Your task to perform on an android device: turn on notifications settings in the gmail app Image 0: 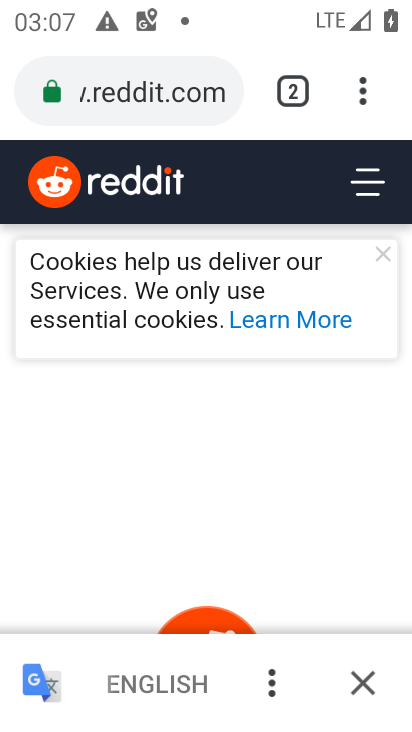
Step 0: press home button
Your task to perform on an android device: turn on notifications settings in the gmail app Image 1: 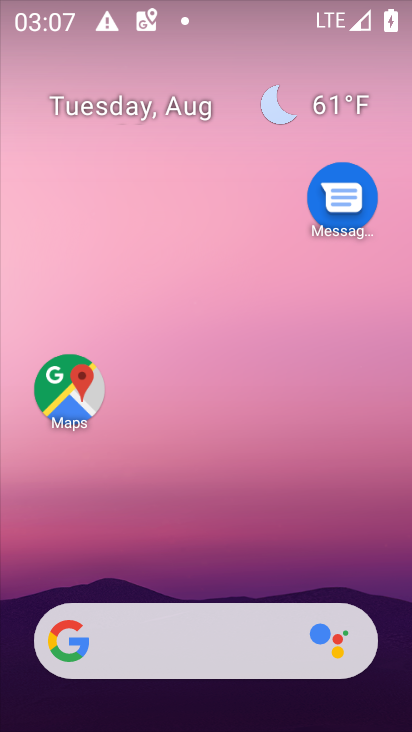
Step 1: drag from (200, 572) to (213, 43)
Your task to perform on an android device: turn on notifications settings in the gmail app Image 2: 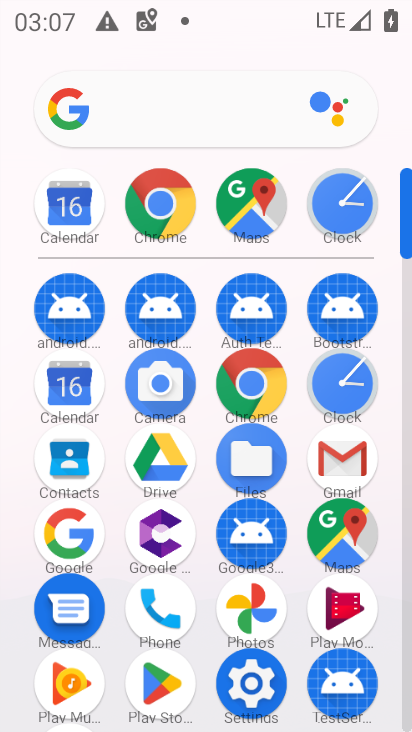
Step 2: click (327, 459)
Your task to perform on an android device: turn on notifications settings in the gmail app Image 3: 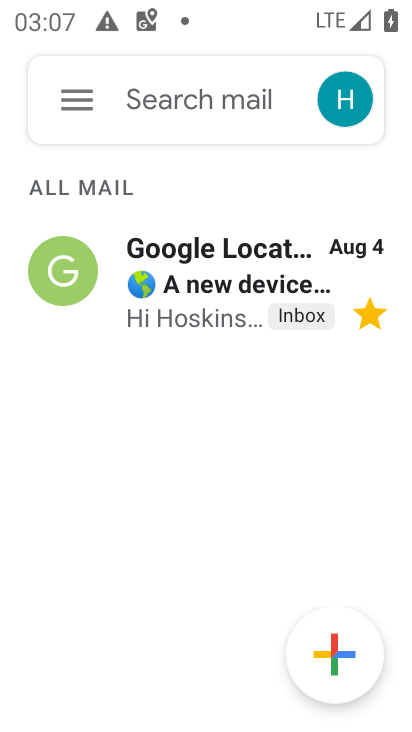
Step 3: click (57, 108)
Your task to perform on an android device: turn on notifications settings in the gmail app Image 4: 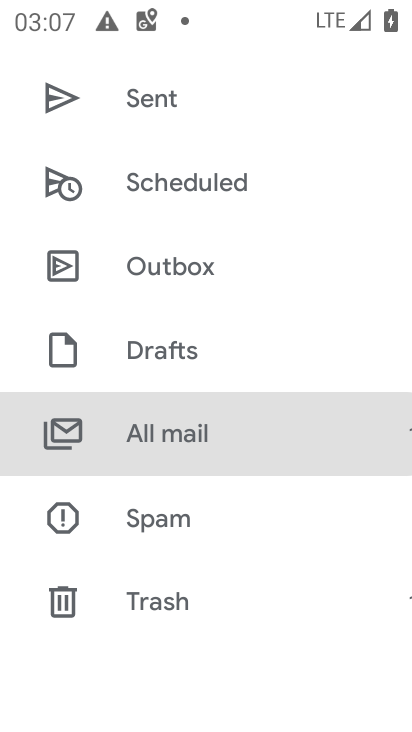
Step 4: drag from (203, 618) to (203, 337)
Your task to perform on an android device: turn on notifications settings in the gmail app Image 5: 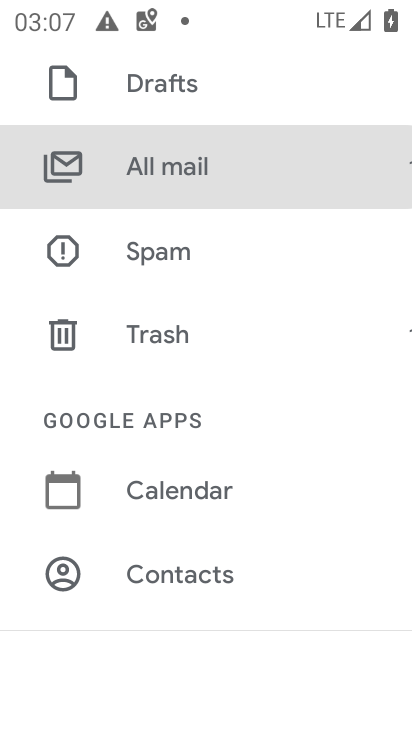
Step 5: drag from (221, 621) to (205, 312)
Your task to perform on an android device: turn on notifications settings in the gmail app Image 6: 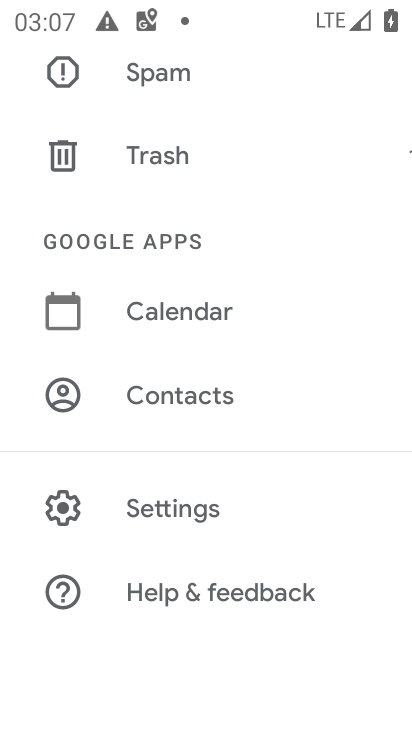
Step 6: click (211, 488)
Your task to perform on an android device: turn on notifications settings in the gmail app Image 7: 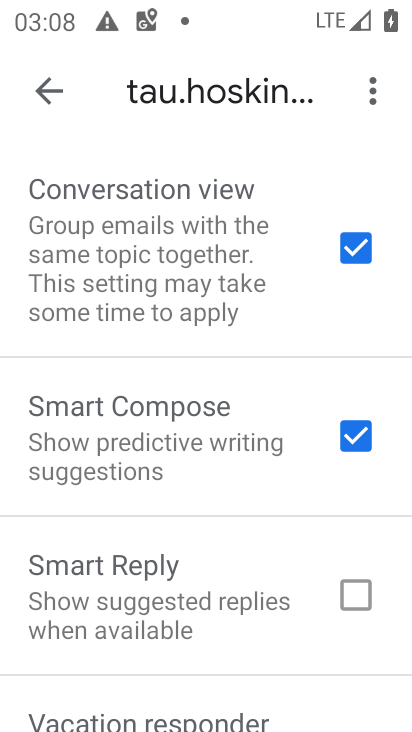
Step 7: drag from (212, 603) to (239, 197)
Your task to perform on an android device: turn on notifications settings in the gmail app Image 8: 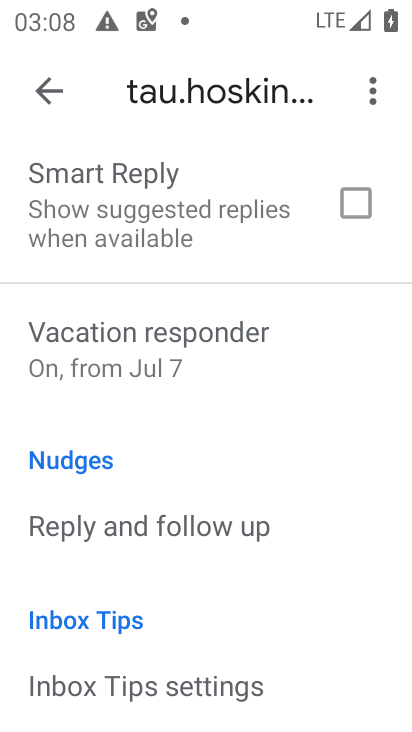
Step 8: drag from (205, 556) to (215, 216)
Your task to perform on an android device: turn on notifications settings in the gmail app Image 9: 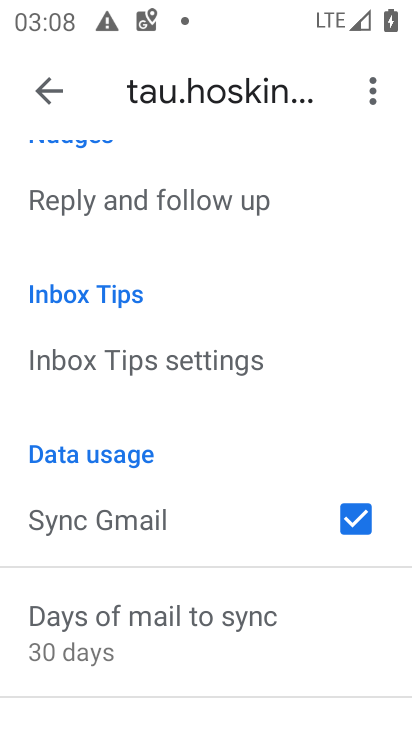
Step 9: drag from (129, 231) to (170, 621)
Your task to perform on an android device: turn on notifications settings in the gmail app Image 10: 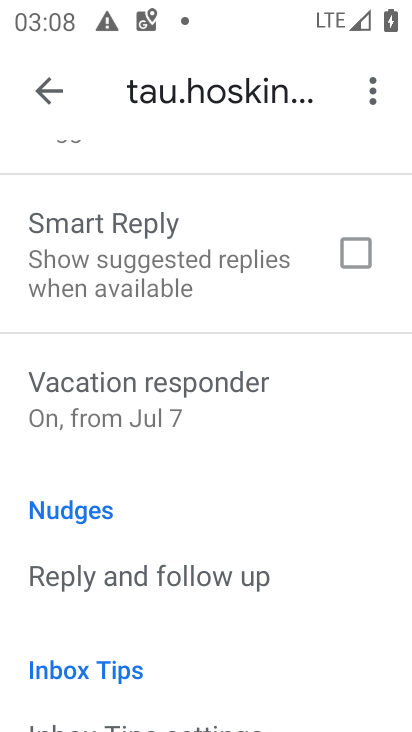
Step 10: drag from (145, 265) to (122, 596)
Your task to perform on an android device: turn on notifications settings in the gmail app Image 11: 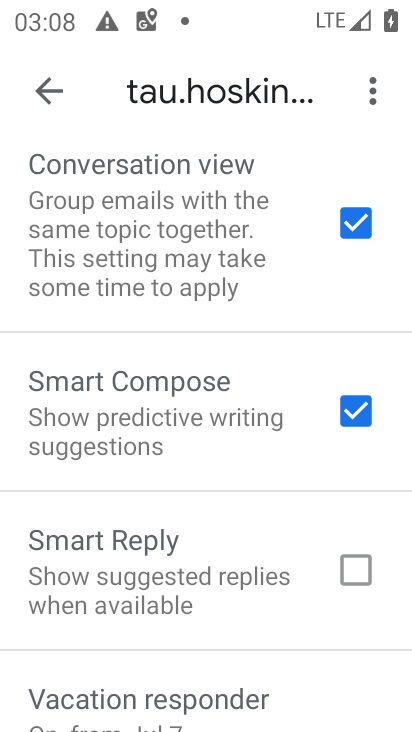
Step 11: drag from (114, 220) to (167, 596)
Your task to perform on an android device: turn on notifications settings in the gmail app Image 12: 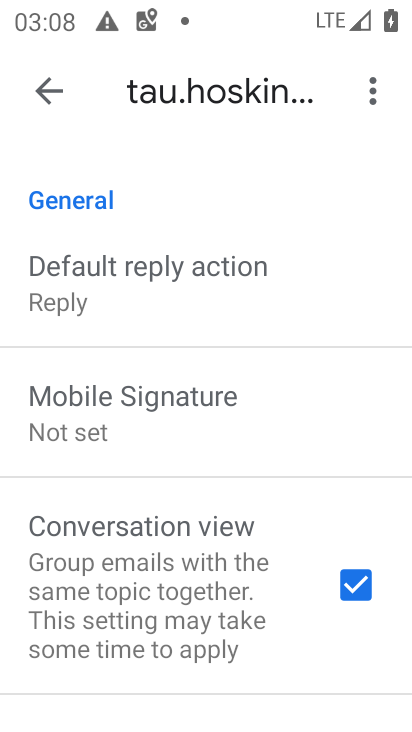
Step 12: drag from (146, 319) to (163, 699)
Your task to perform on an android device: turn on notifications settings in the gmail app Image 13: 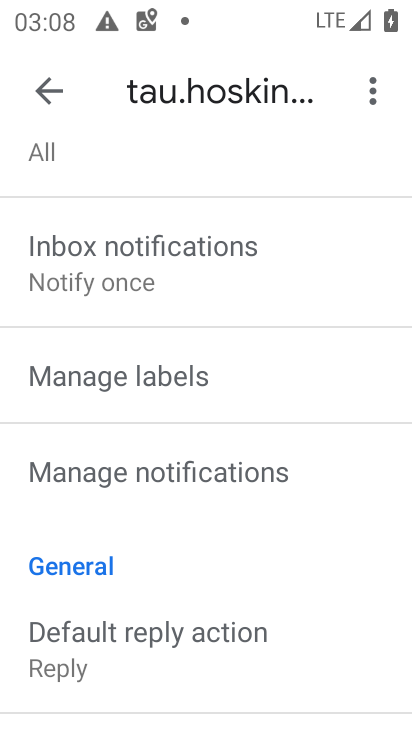
Step 13: click (157, 452)
Your task to perform on an android device: turn on notifications settings in the gmail app Image 14: 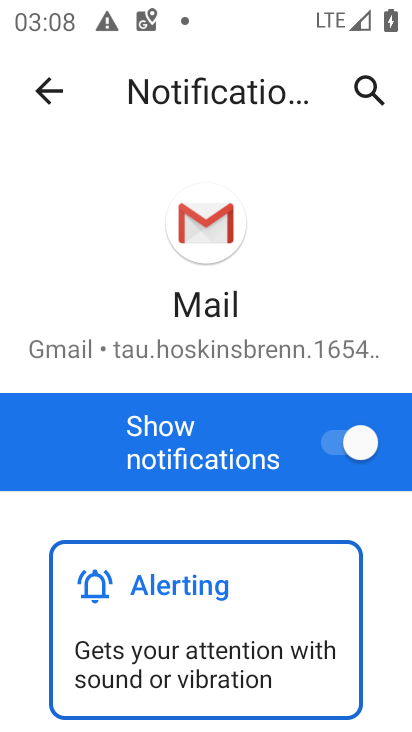
Step 14: click (320, 422)
Your task to perform on an android device: turn on notifications settings in the gmail app Image 15: 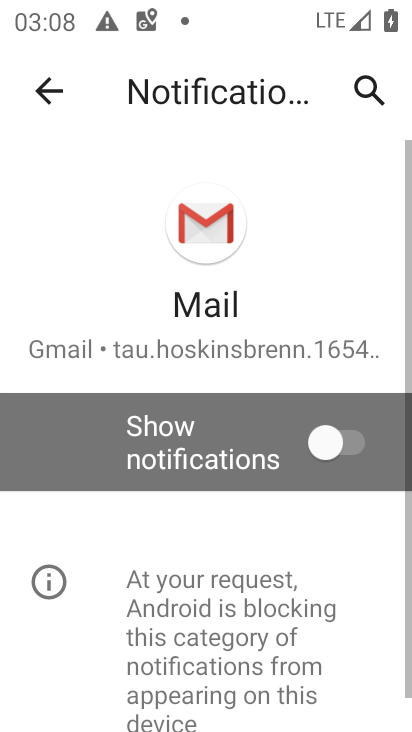
Step 15: task complete